Your task to perform on an android device: Open Google Maps Image 0: 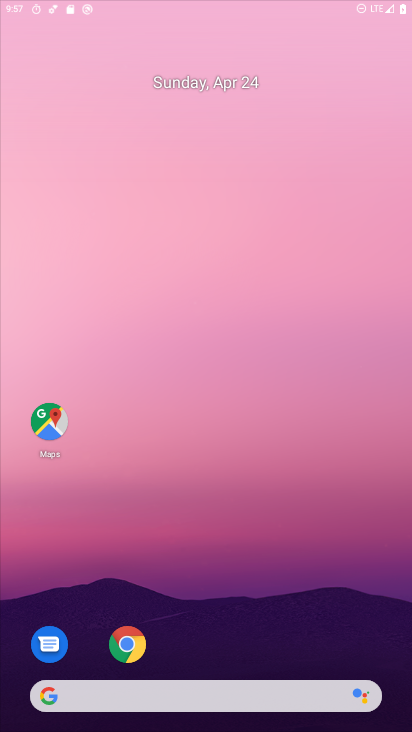
Step 0: drag from (220, 279) to (230, 10)
Your task to perform on an android device: Open Google Maps Image 1: 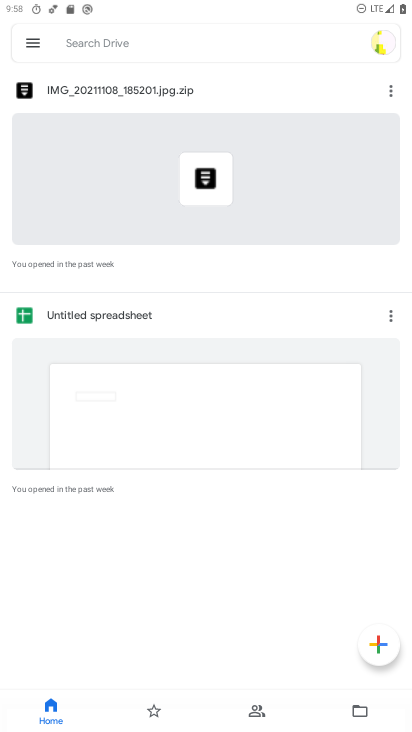
Step 1: press home button
Your task to perform on an android device: Open Google Maps Image 2: 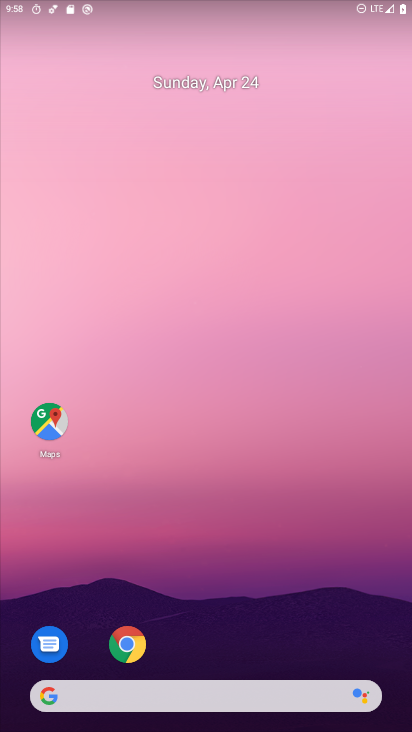
Step 2: drag from (234, 672) to (284, 16)
Your task to perform on an android device: Open Google Maps Image 3: 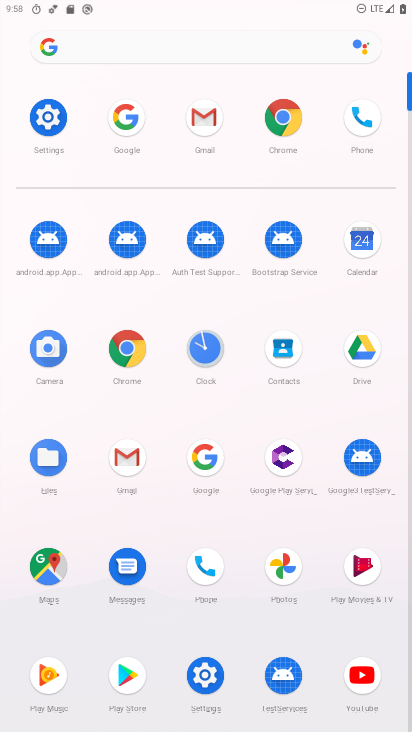
Step 3: click (67, 557)
Your task to perform on an android device: Open Google Maps Image 4: 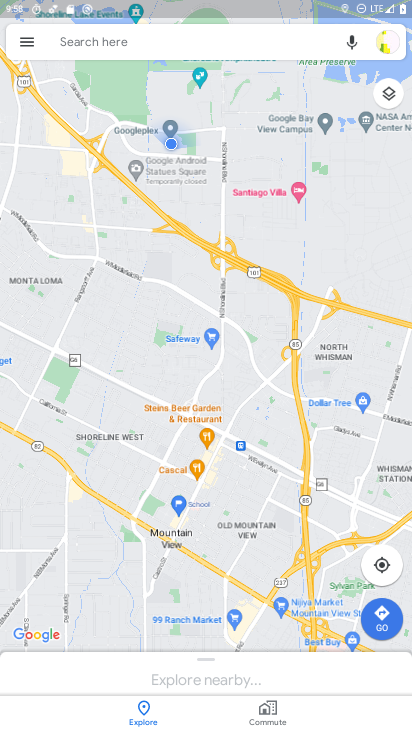
Step 4: task complete